Your task to perform on an android device: turn on translation in the chrome app Image 0: 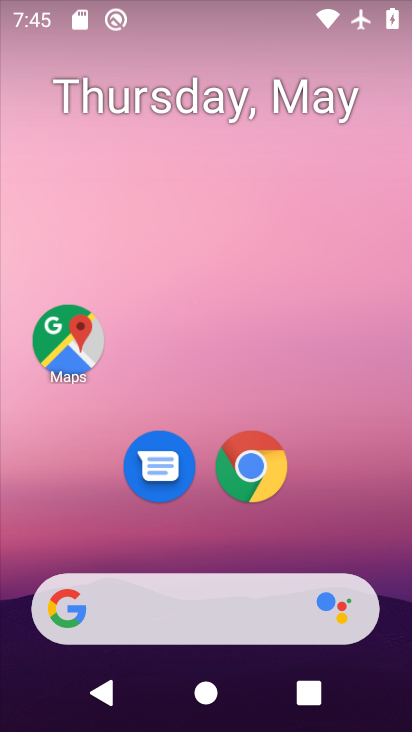
Step 0: drag from (356, 533) to (356, 119)
Your task to perform on an android device: turn on translation in the chrome app Image 1: 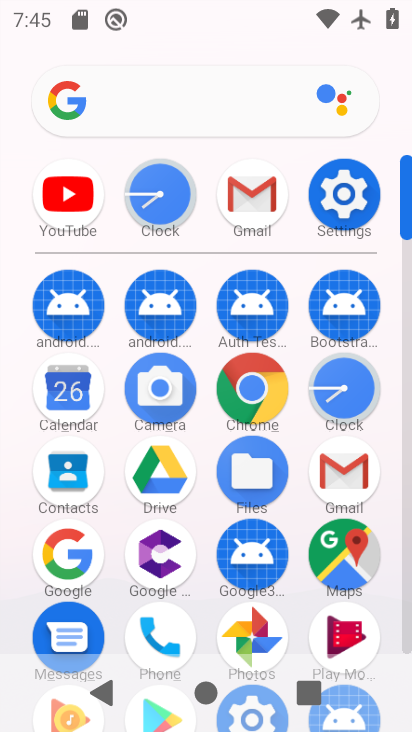
Step 1: click (243, 393)
Your task to perform on an android device: turn on translation in the chrome app Image 2: 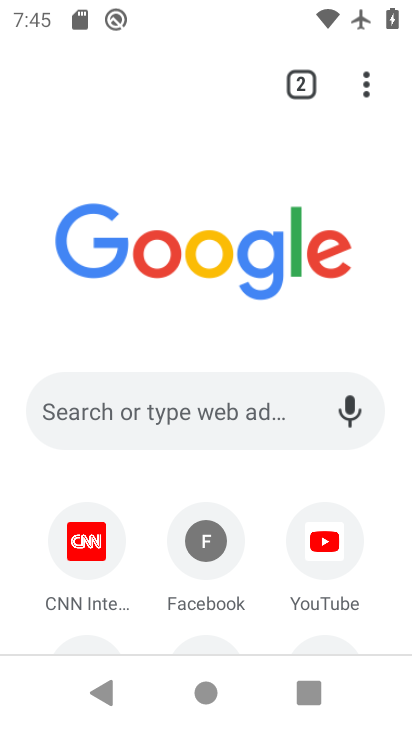
Step 2: click (381, 88)
Your task to perform on an android device: turn on translation in the chrome app Image 3: 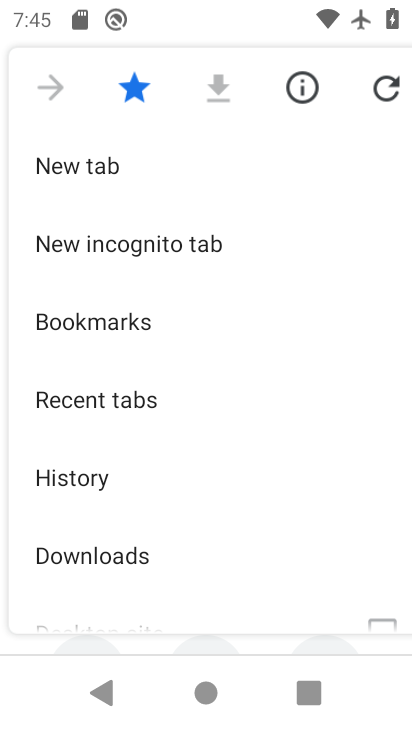
Step 3: drag from (195, 537) to (262, 191)
Your task to perform on an android device: turn on translation in the chrome app Image 4: 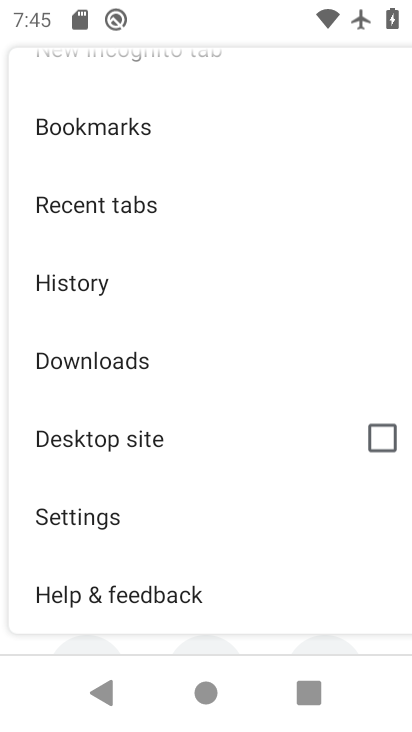
Step 4: drag from (170, 535) to (206, 328)
Your task to perform on an android device: turn on translation in the chrome app Image 5: 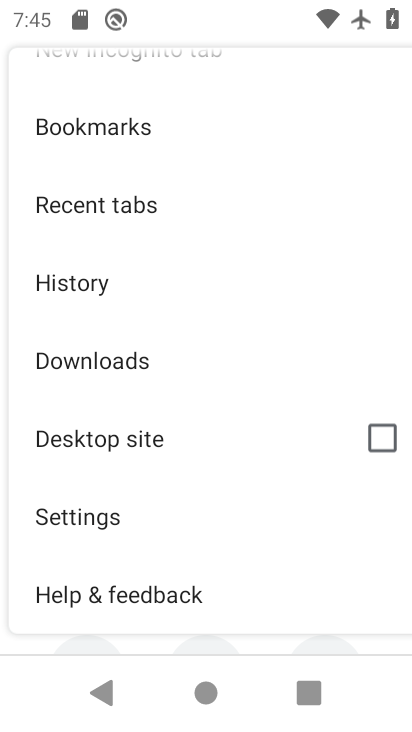
Step 5: click (126, 509)
Your task to perform on an android device: turn on translation in the chrome app Image 6: 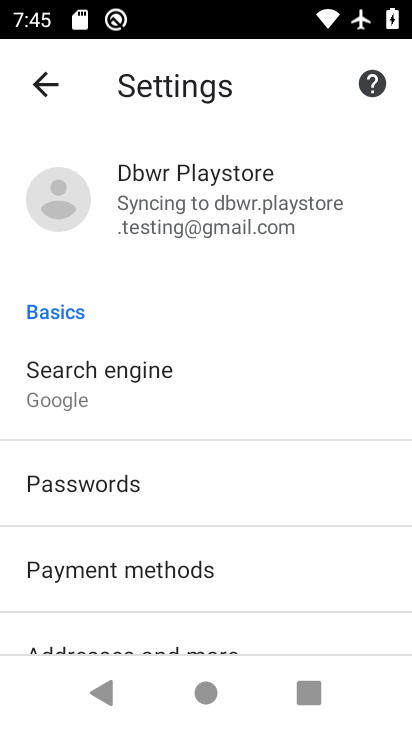
Step 6: drag from (247, 516) to (285, 96)
Your task to perform on an android device: turn on translation in the chrome app Image 7: 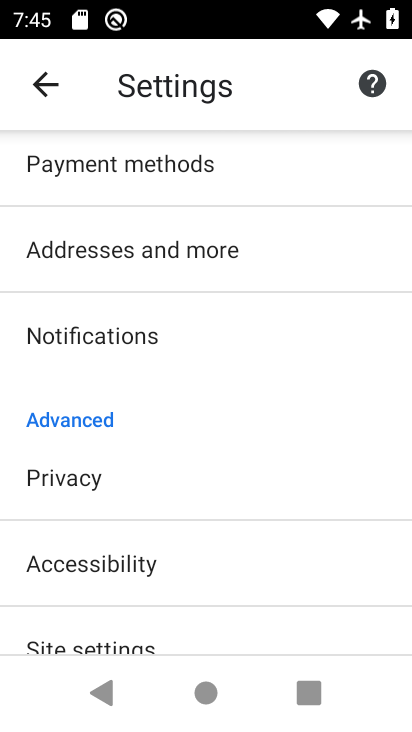
Step 7: click (202, 600)
Your task to perform on an android device: turn on translation in the chrome app Image 8: 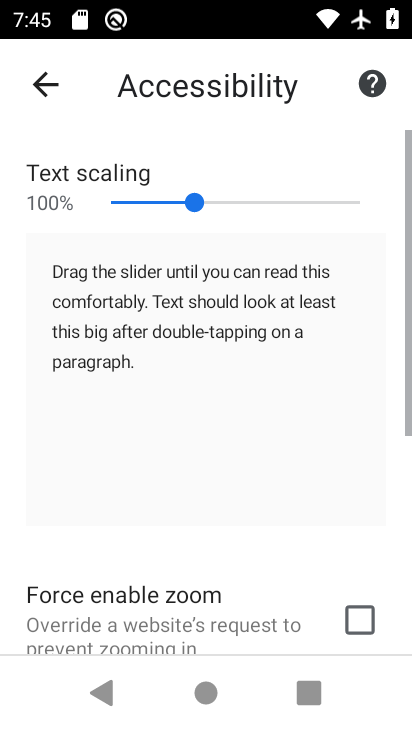
Step 8: drag from (220, 493) to (229, 450)
Your task to perform on an android device: turn on translation in the chrome app Image 9: 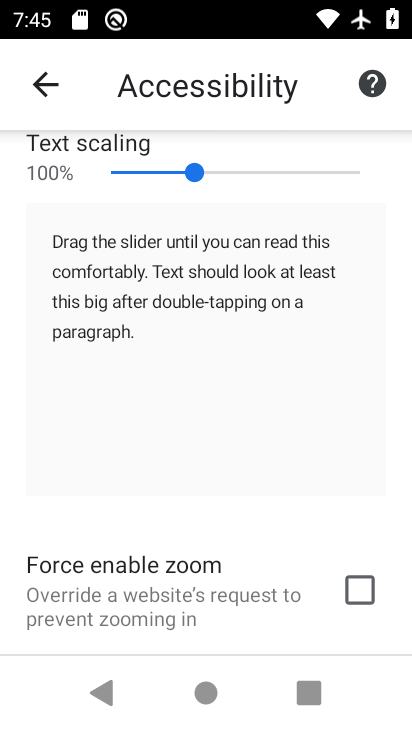
Step 9: drag from (184, 529) to (214, 328)
Your task to perform on an android device: turn on translation in the chrome app Image 10: 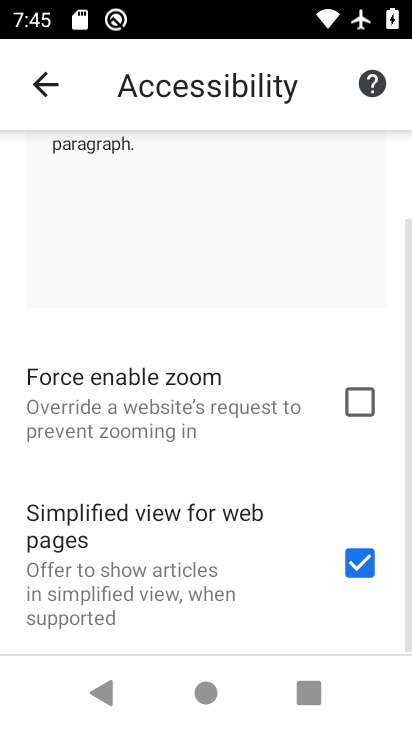
Step 10: click (59, 79)
Your task to perform on an android device: turn on translation in the chrome app Image 11: 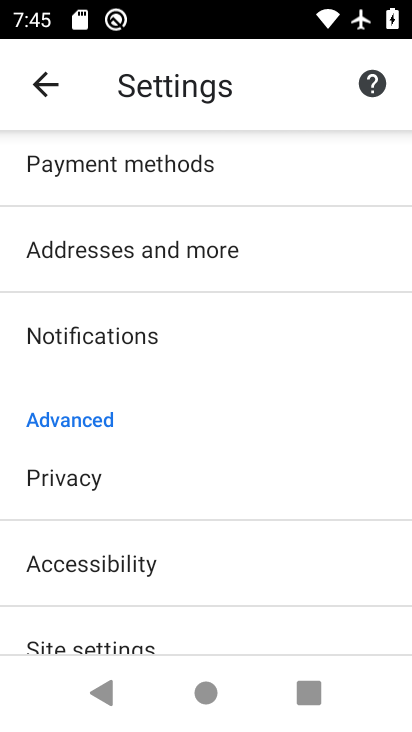
Step 11: drag from (135, 558) to (153, 321)
Your task to perform on an android device: turn on translation in the chrome app Image 12: 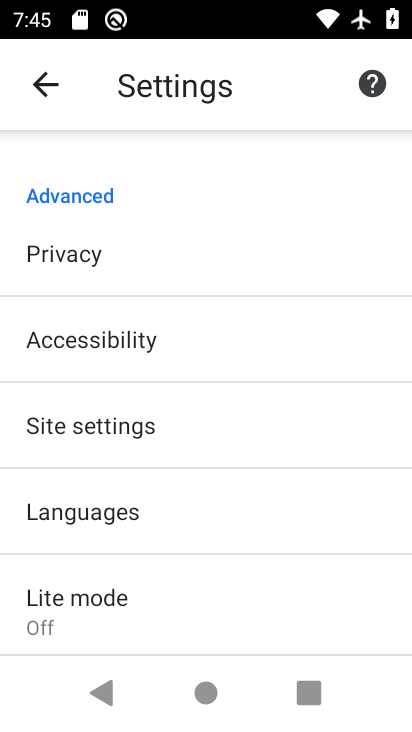
Step 12: click (197, 517)
Your task to perform on an android device: turn on translation in the chrome app Image 13: 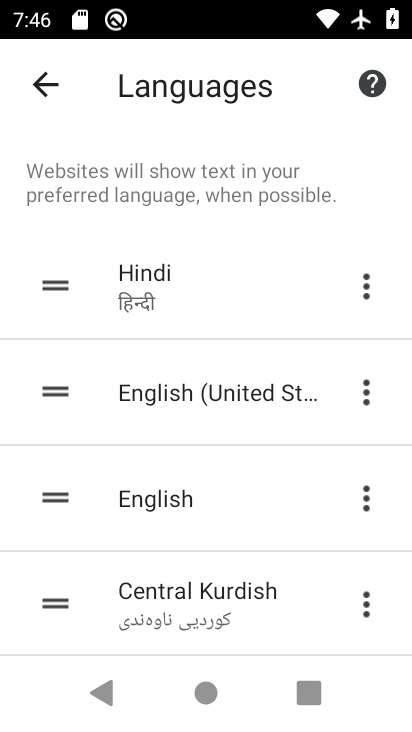
Step 13: drag from (247, 598) to (267, 263)
Your task to perform on an android device: turn on translation in the chrome app Image 14: 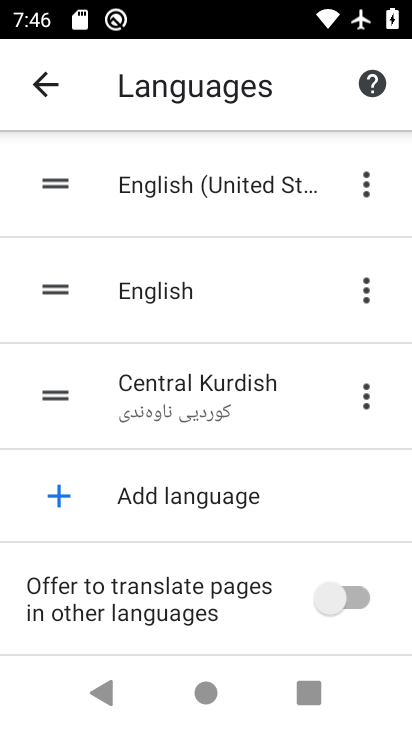
Step 14: click (354, 567)
Your task to perform on an android device: turn on translation in the chrome app Image 15: 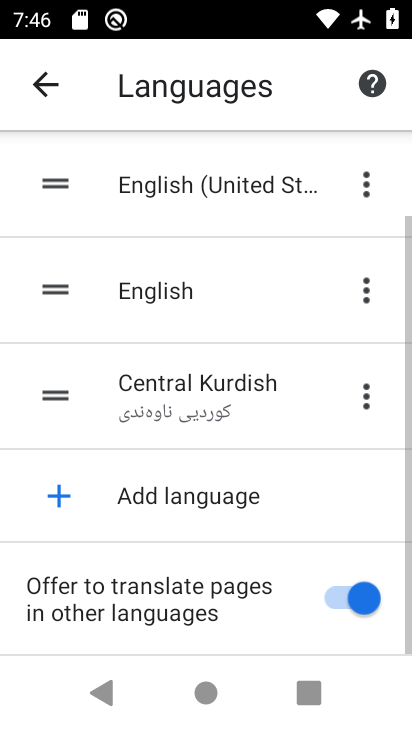
Step 15: task complete